Your task to perform on an android device: turn on wifi Image 0: 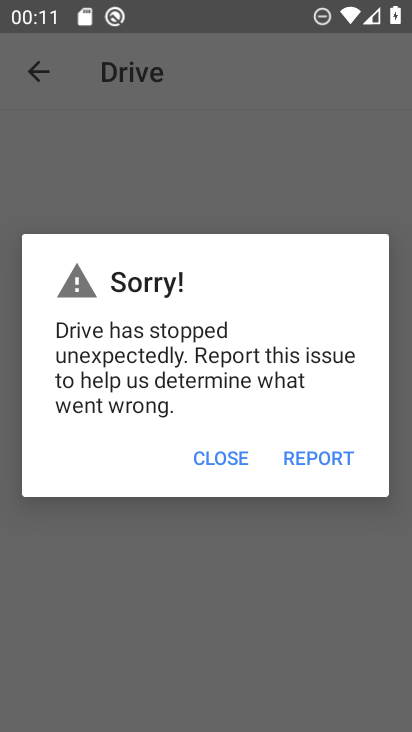
Step 0: press home button
Your task to perform on an android device: turn on wifi Image 1: 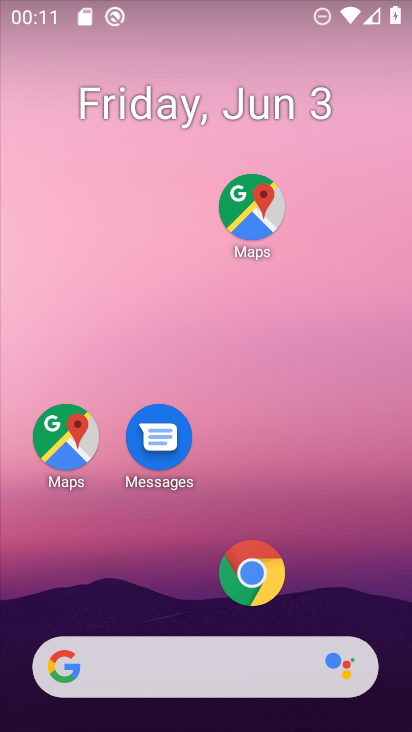
Step 1: drag from (323, 585) to (251, 35)
Your task to perform on an android device: turn on wifi Image 2: 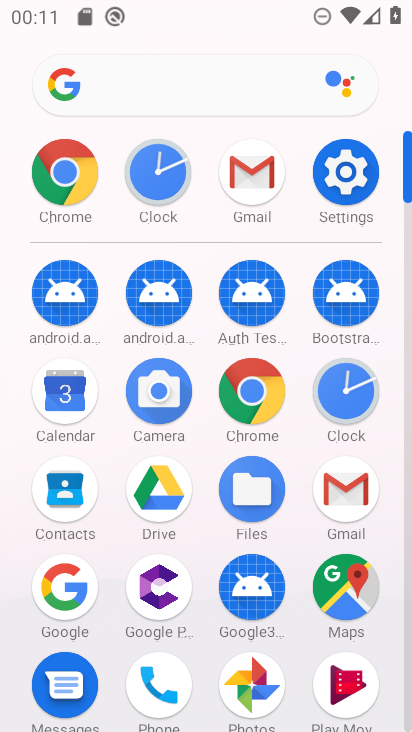
Step 2: click (347, 179)
Your task to perform on an android device: turn on wifi Image 3: 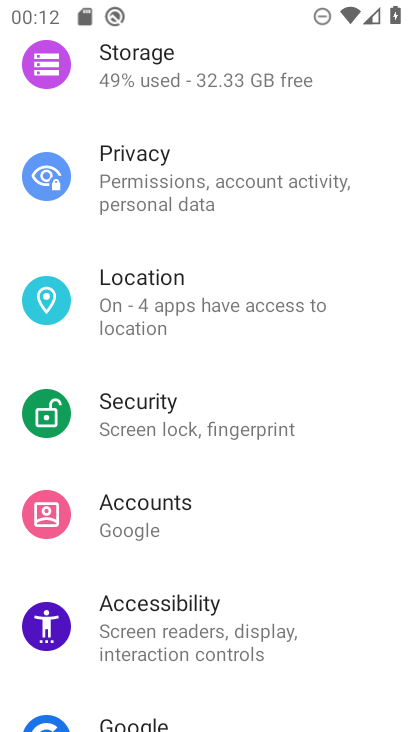
Step 3: drag from (265, 165) to (227, 549)
Your task to perform on an android device: turn on wifi Image 4: 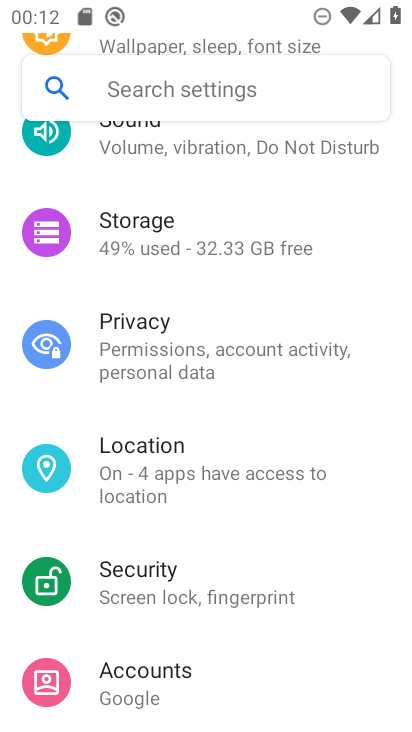
Step 4: drag from (274, 209) to (254, 592)
Your task to perform on an android device: turn on wifi Image 5: 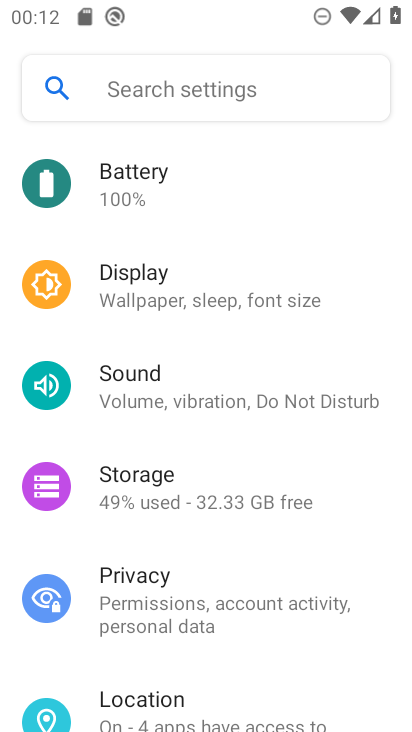
Step 5: drag from (273, 222) to (277, 661)
Your task to perform on an android device: turn on wifi Image 6: 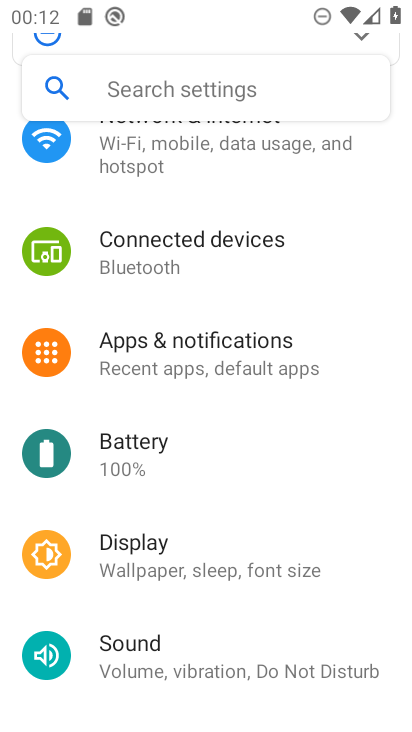
Step 6: drag from (238, 222) to (250, 660)
Your task to perform on an android device: turn on wifi Image 7: 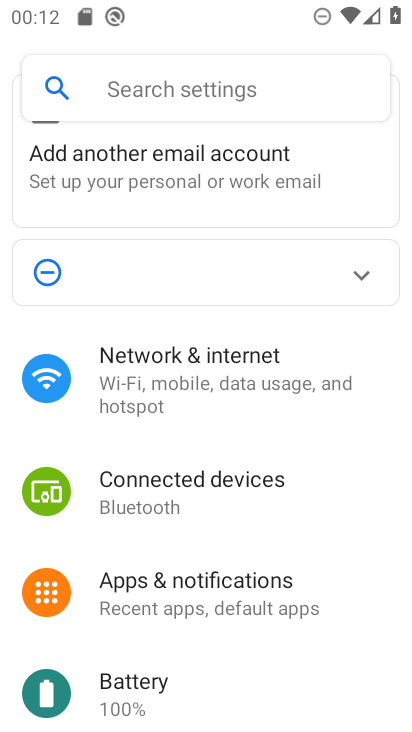
Step 7: click (234, 378)
Your task to perform on an android device: turn on wifi Image 8: 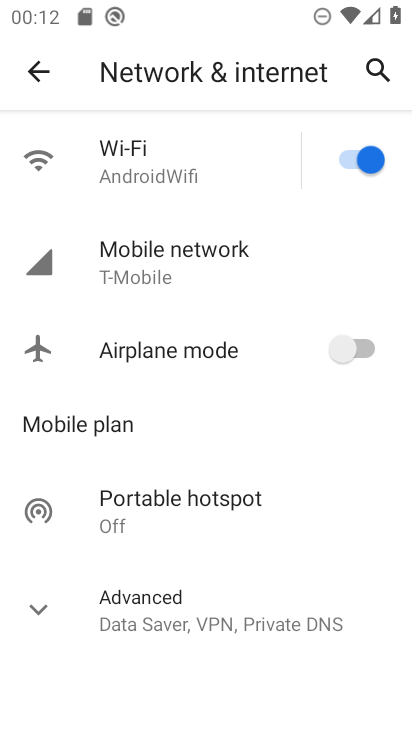
Step 8: task complete